Your task to perform on an android device: Toggle the flashlight Image 0: 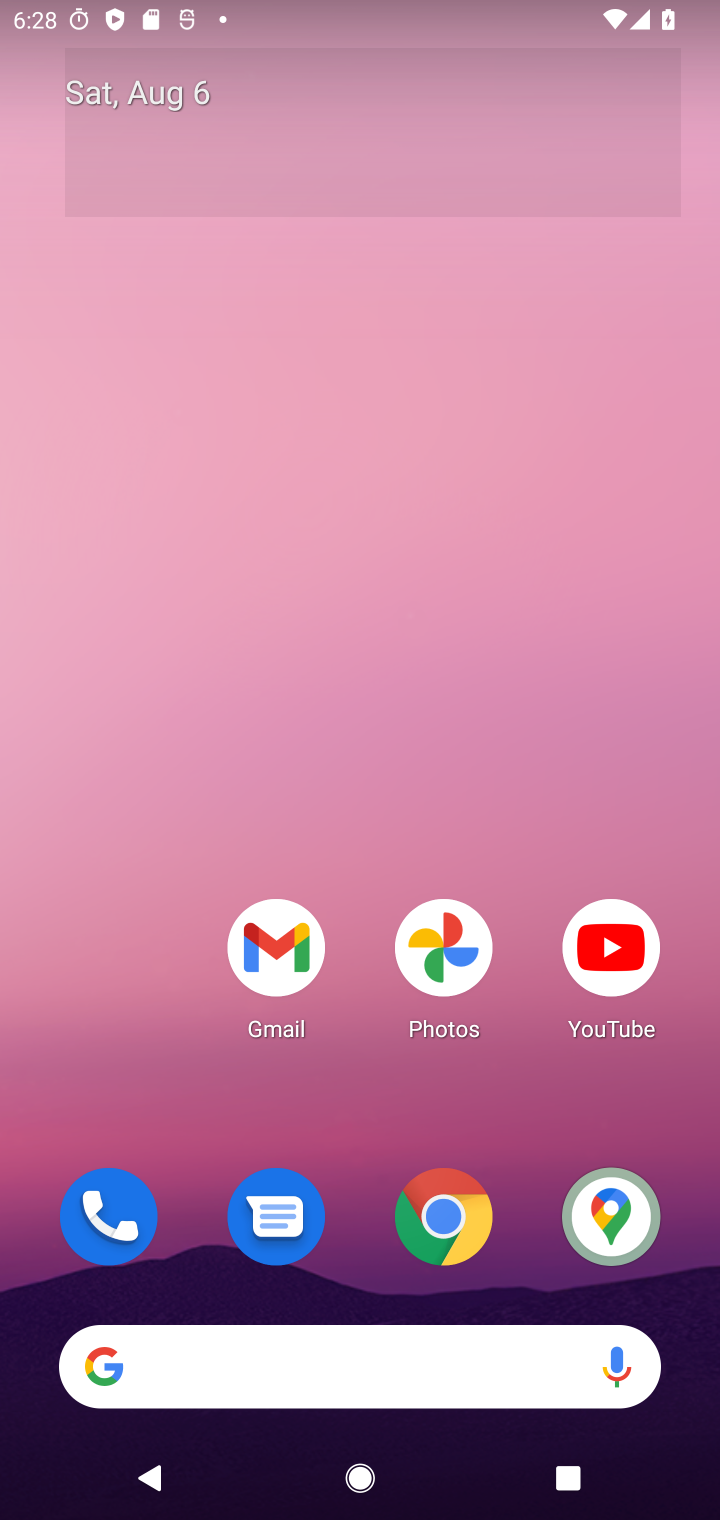
Step 0: drag from (534, 1115) to (495, 168)
Your task to perform on an android device: Toggle the flashlight Image 1: 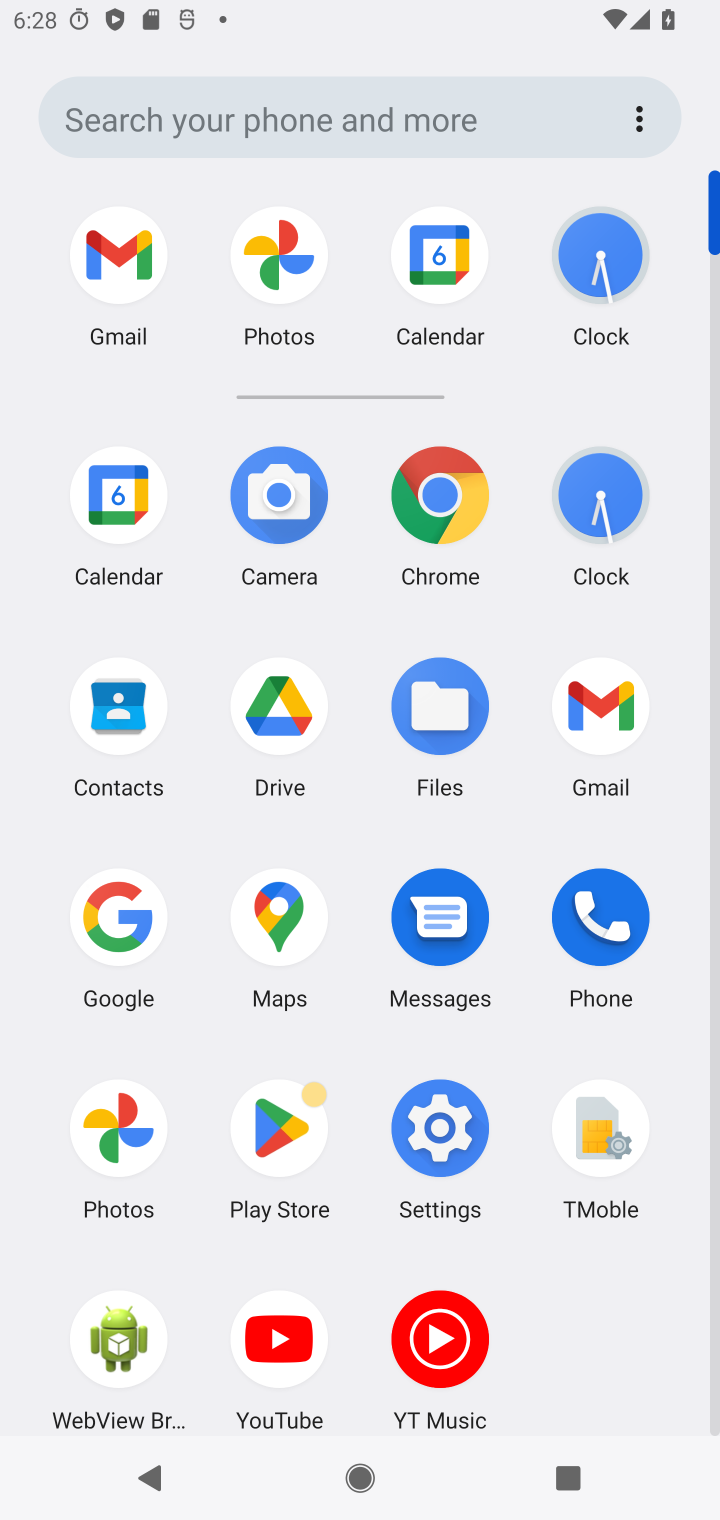
Step 1: click (468, 1131)
Your task to perform on an android device: Toggle the flashlight Image 2: 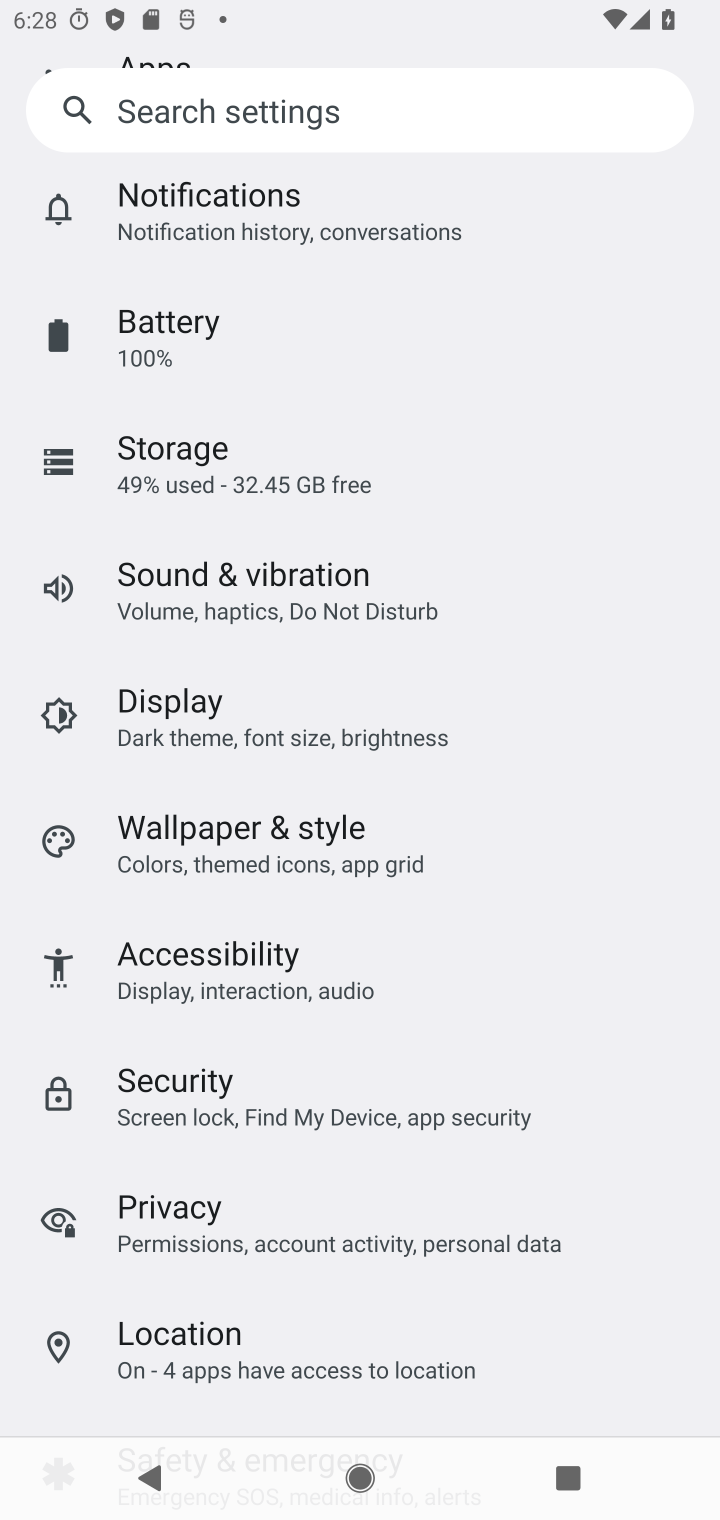
Step 2: click (199, 733)
Your task to perform on an android device: Toggle the flashlight Image 3: 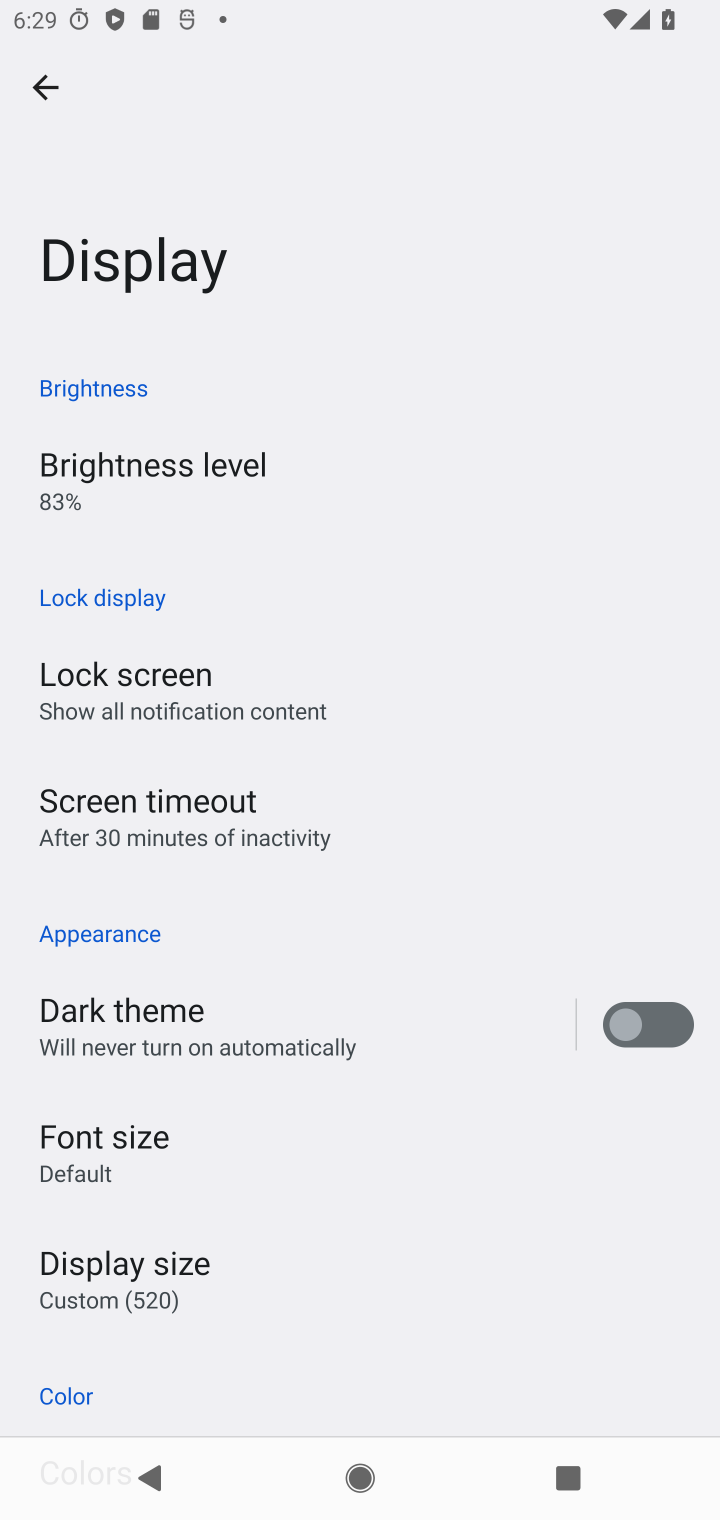
Step 3: click (150, 1275)
Your task to perform on an android device: Toggle the flashlight Image 4: 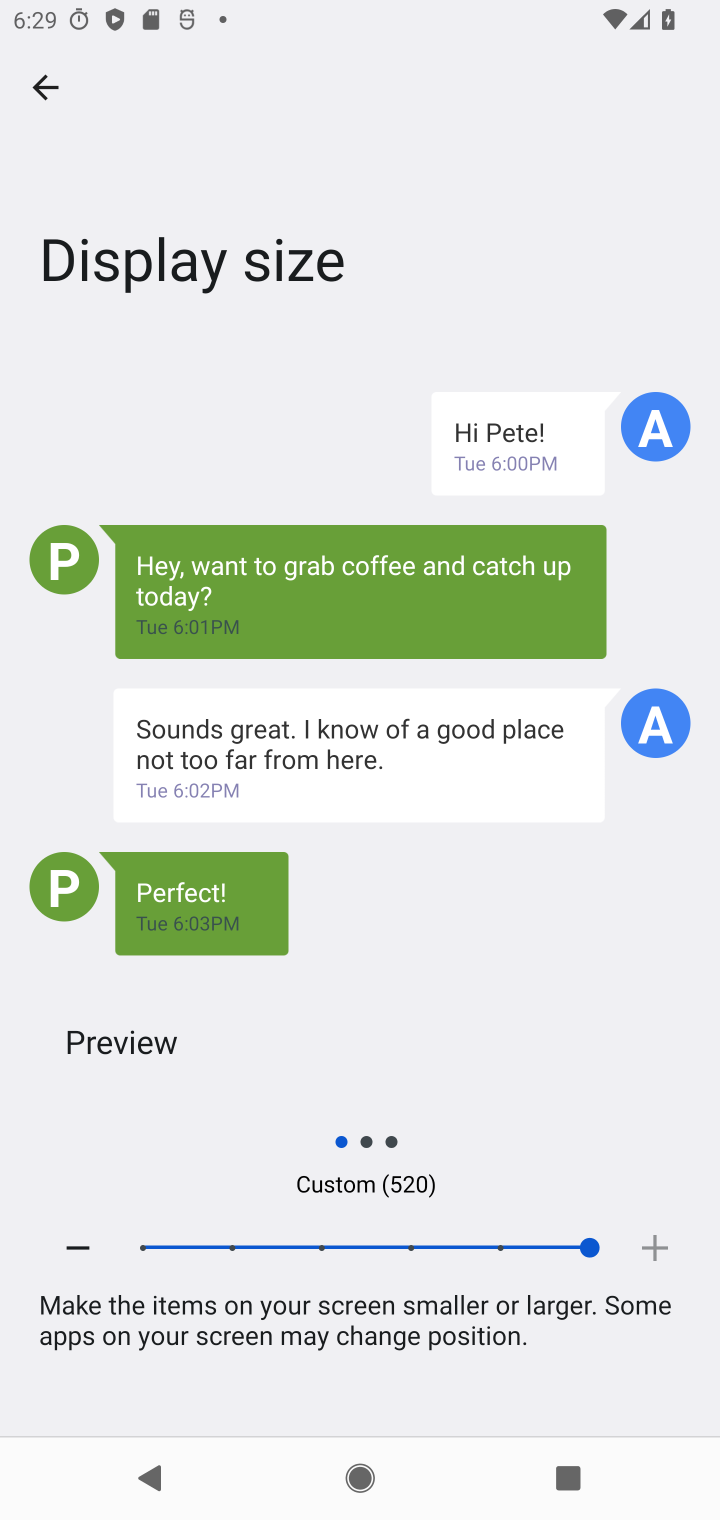
Step 4: task complete